Your task to perform on an android device: empty trash in google photos Image 0: 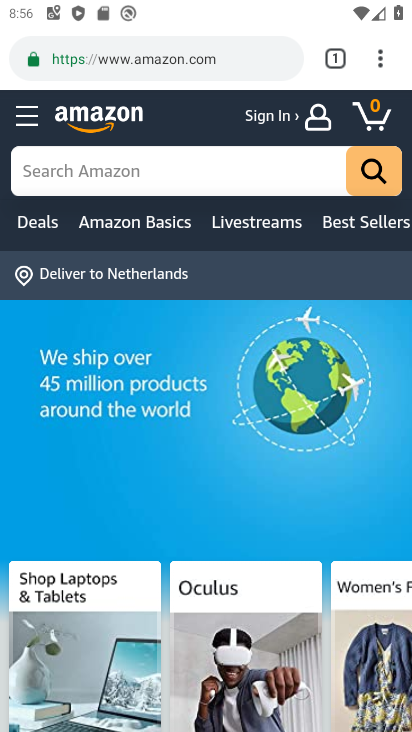
Step 0: press home button
Your task to perform on an android device: empty trash in google photos Image 1: 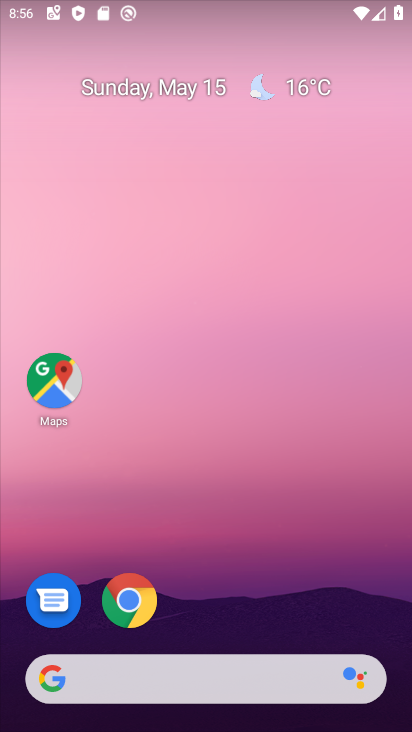
Step 1: drag from (244, 551) to (293, 138)
Your task to perform on an android device: empty trash in google photos Image 2: 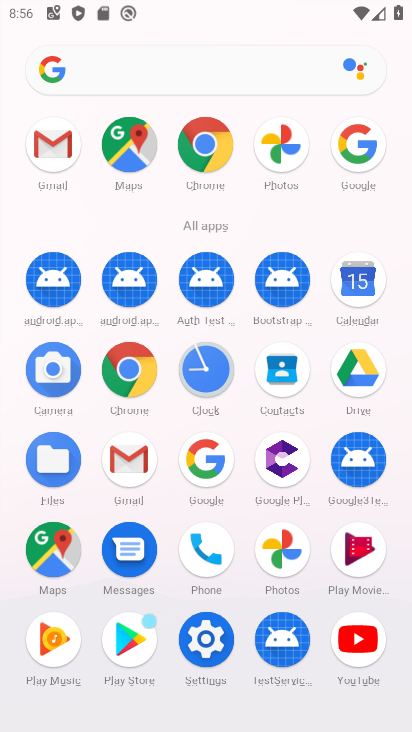
Step 2: click (283, 137)
Your task to perform on an android device: empty trash in google photos Image 3: 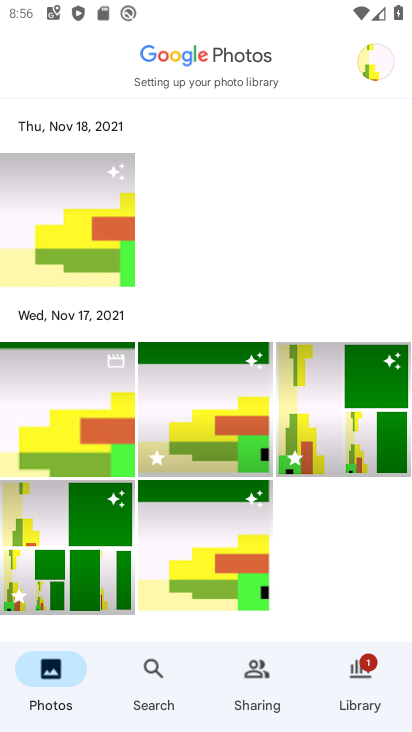
Step 3: click (386, 56)
Your task to perform on an android device: empty trash in google photos Image 4: 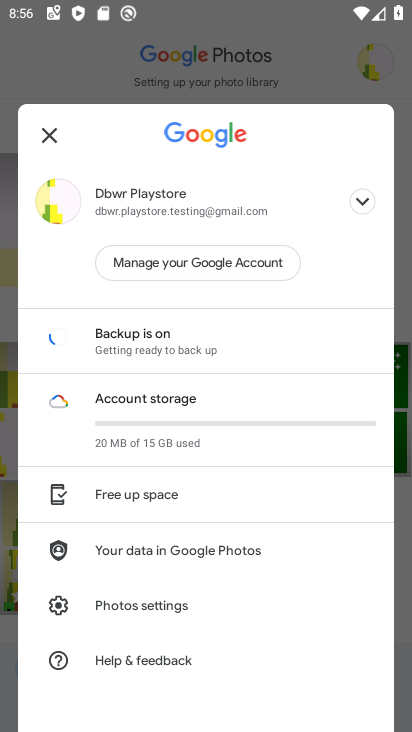
Step 4: click (154, 207)
Your task to perform on an android device: empty trash in google photos Image 5: 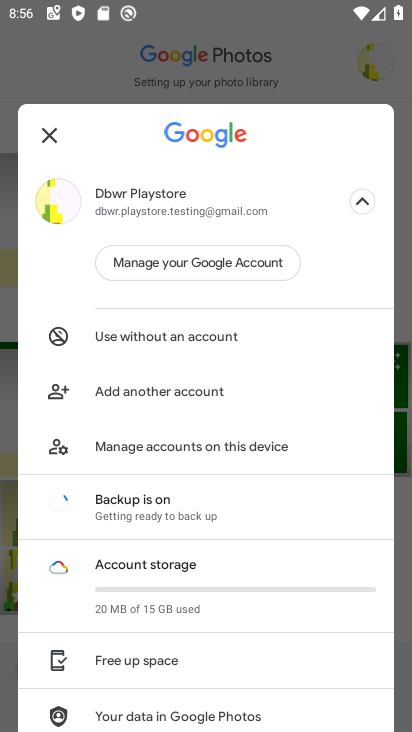
Step 5: task complete